Your task to perform on an android device: turn off smart reply in the gmail app Image 0: 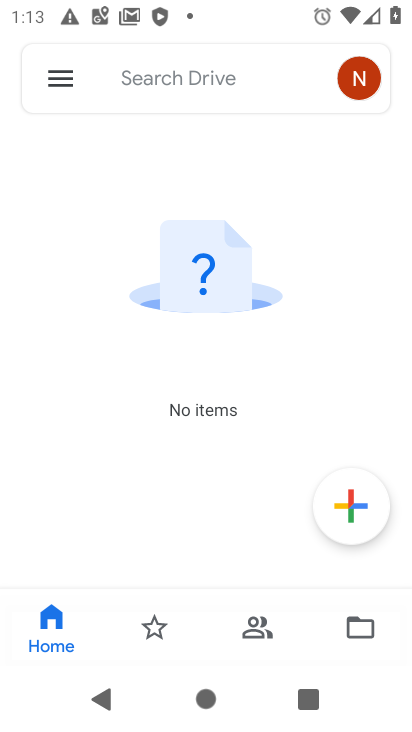
Step 0: press back button
Your task to perform on an android device: turn off smart reply in the gmail app Image 1: 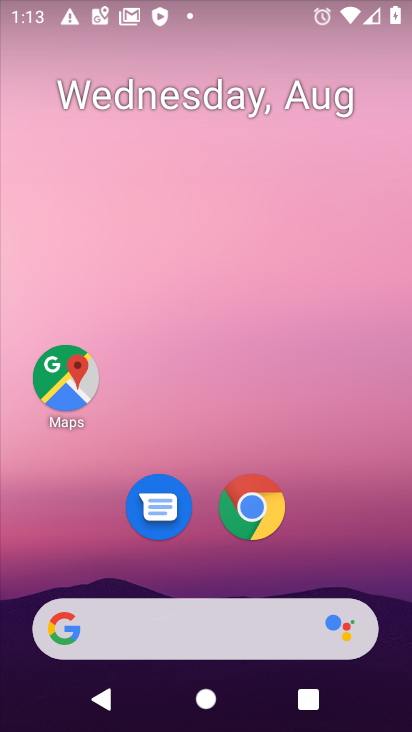
Step 1: drag from (208, 594) to (139, 9)
Your task to perform on an android device: turn off smart reply in the gmail app Image 2: 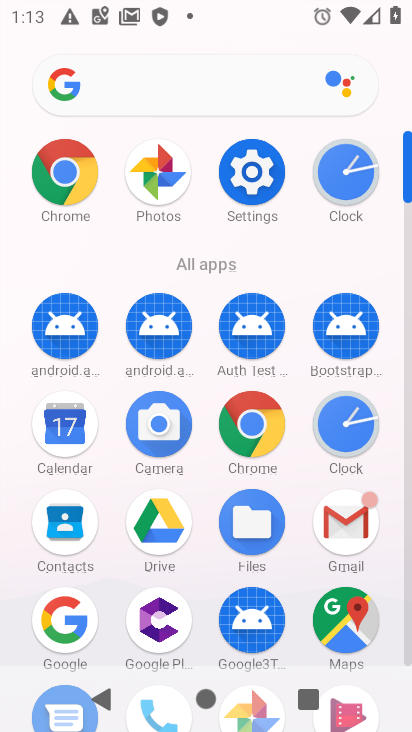
Step 2: click (337, 540)
Your task to perform on an android device: turn off smart reply in the gmail app Image 3: 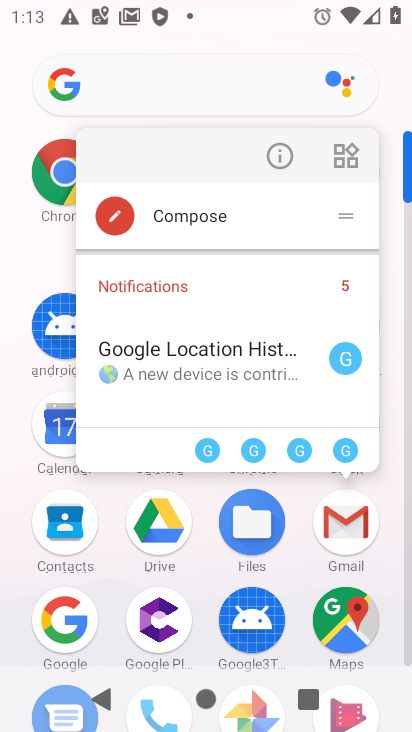
Step 3: click (341, 537)
Your task to perform on an android device: turn off smart reply in the gmail app Image 4: 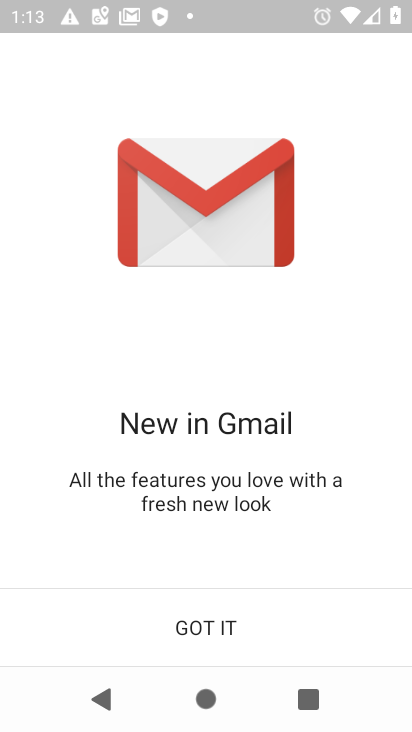
Step 4: click (221, 657)
Your task to perform on an android device: turn off smart reply in the gmail app Image 5: 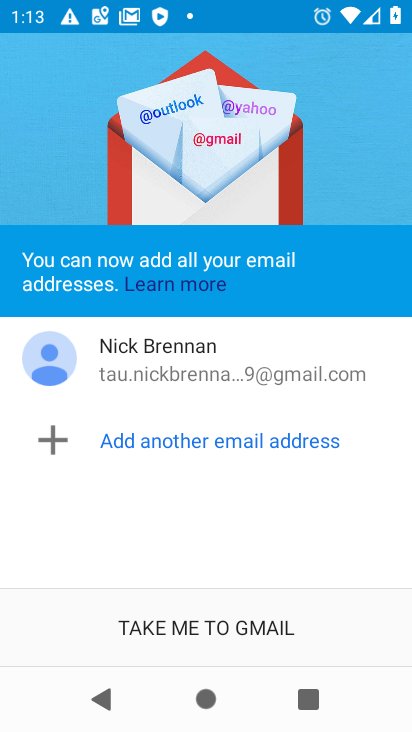
Step 5: click (228, 649)
Your task to perform on an android device: turn off smart reply in the gmail app Image 6: 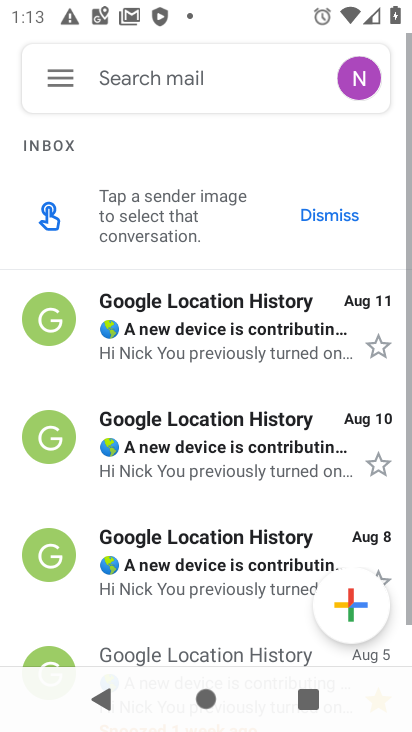
Step 6: click (45, 80)
Your task to perform on an android device: turn off smart reply in the gmail app Image 7: 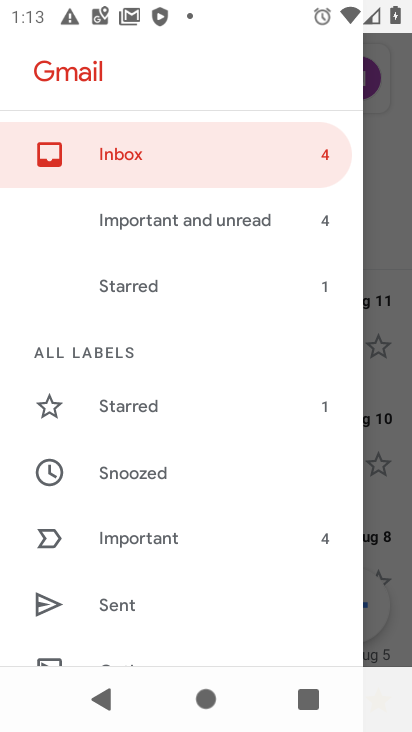
Step 7: drag from (195, 568) to (195, 111)
Your task to perform on an android device: turn off smart reply in the gmail app Image 8: 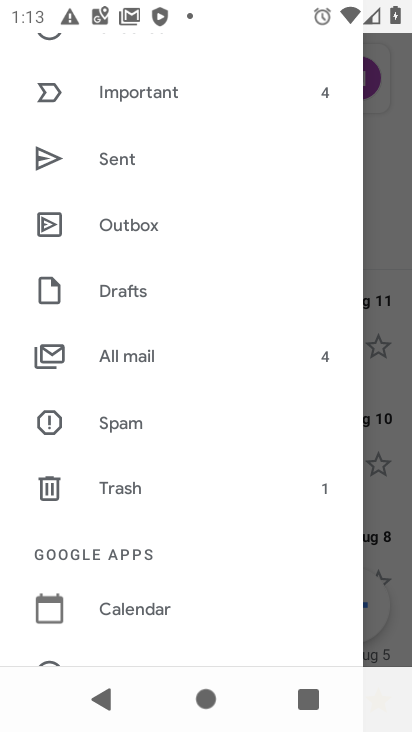
Step 8: drag from (212, 600) to (184, 275)
Your task to perform on an android device: turn off smart reply in the gmail app Image 9: 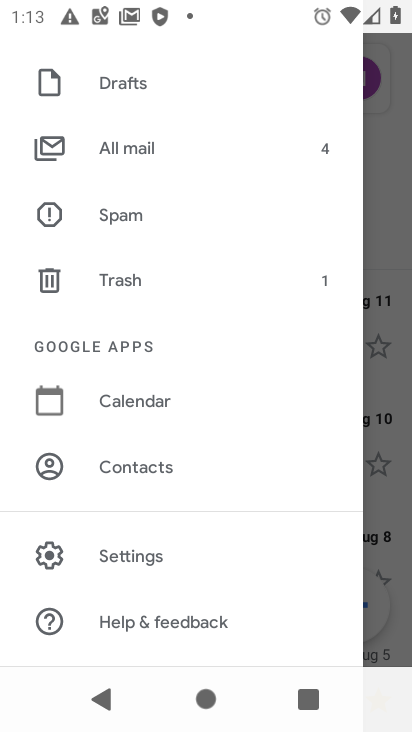
Step 9: click (120, 559)
Your task to perform on an android device: turn off smart reply in the gmail app Image 10: 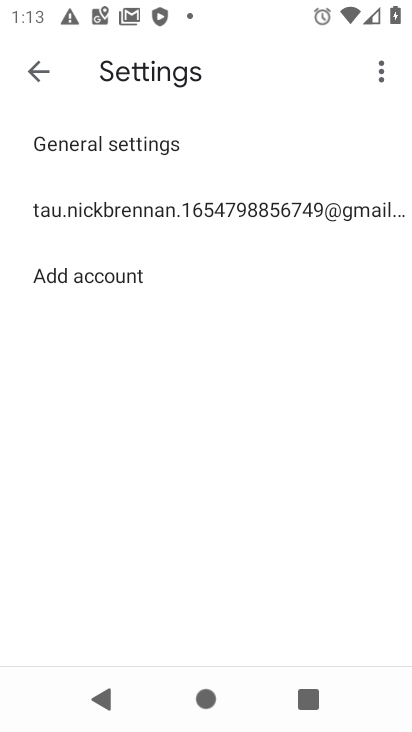
Step 10: click (136, 219)
Your task to perform on an android device: turn off smart reply in the gmail app Image 11: 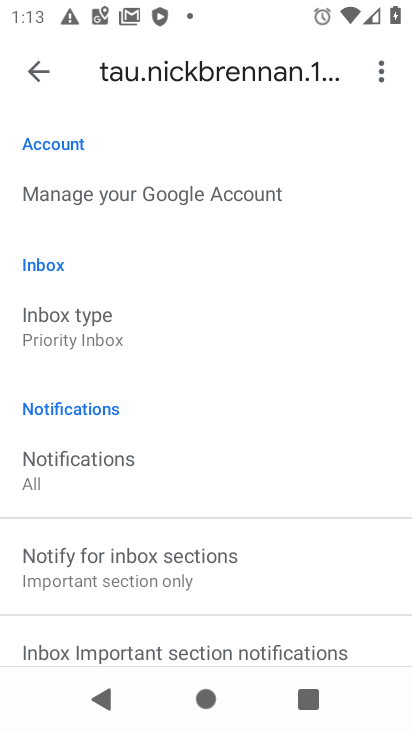
Step 11: drag from (161, 497) to (146, 133)
Your task to perform on an android device: turn off smart reply in the gmail app Image 12: 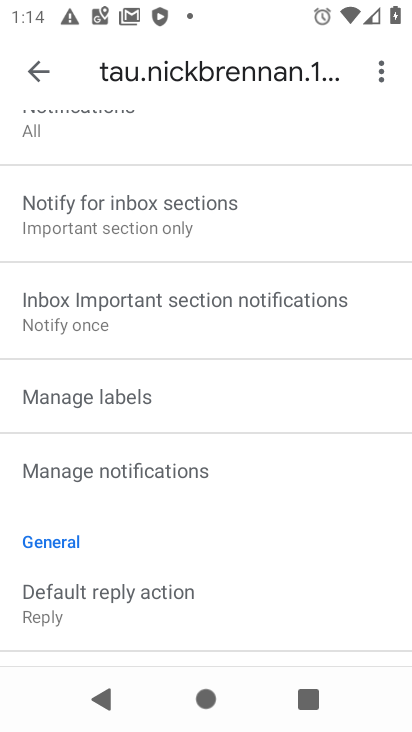
Step 12: drag from (197, 530) to (157, 135)
Your task to perform on an android device: turn off smart reply in the gmail app Image 13: 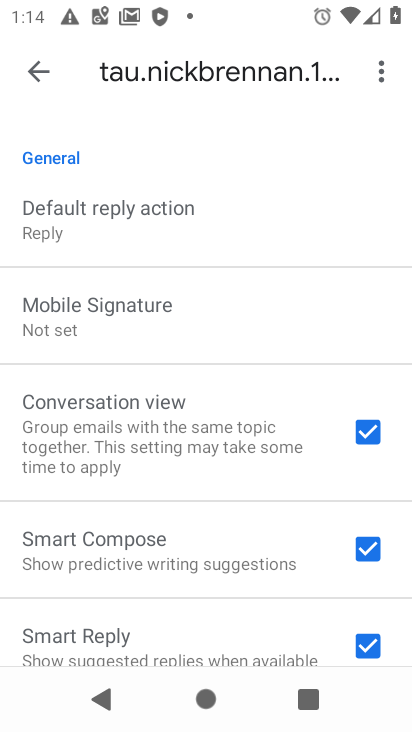
Step 13: click (363, 632)
Your task to perform on an android device: turn off smart reply in the gmail app Image 14: 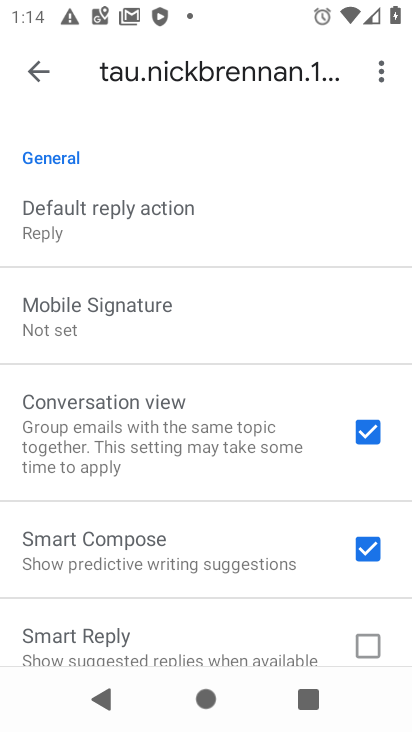
Step 14: task complete